Your task to perform on an android device: turn on priority inbox in the gmail app Image 0: 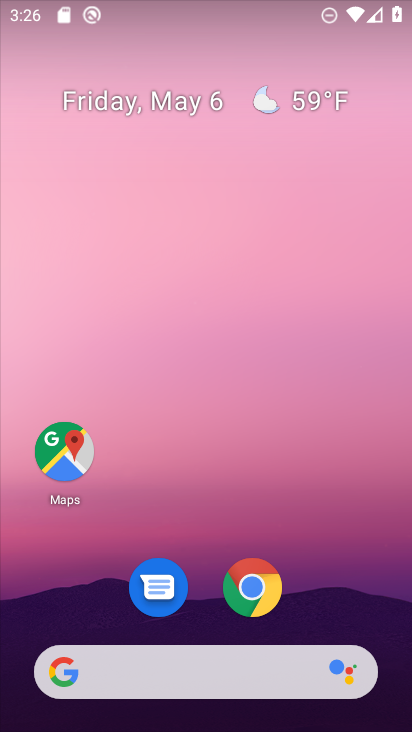
Step 0: drag from (392, 557) to (411, 329)
Your task to perform on an android device: turn on priority inbox in the gmail app Image 1: 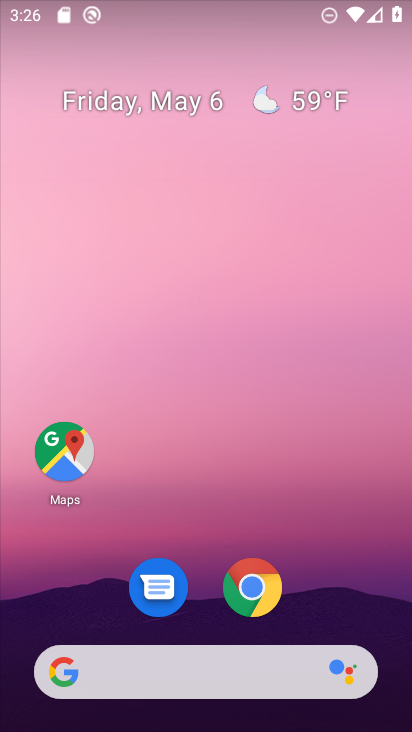
Step 1: drag from (344, 572) to (344, 93)
Your task to perform on an android device: turn on priority inbox in the gmail app Image 2: 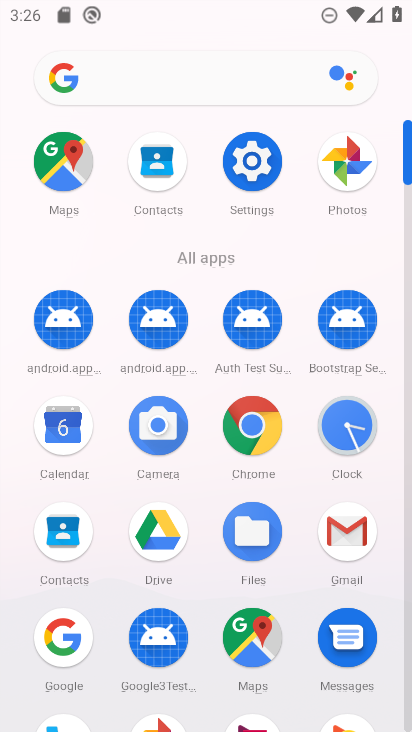
Step 2: click (347, 544)
Your task to perform on an android device: turn on priority inbox in the gmail app Image 3: 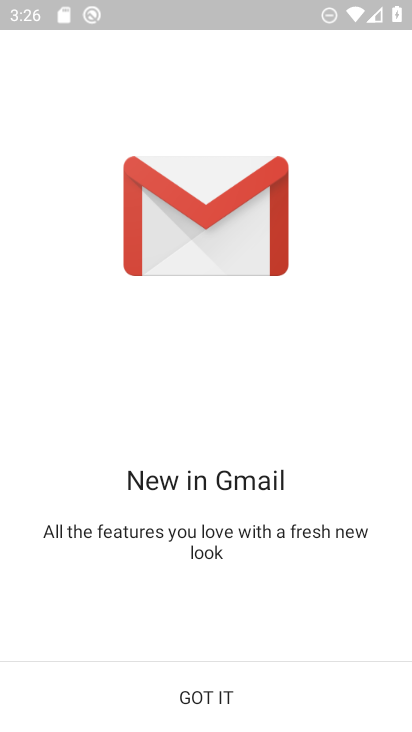
Step 3: click (203, 679)
Your task to perform on an android device: turn on priority inbox in the gmail app Image 4: 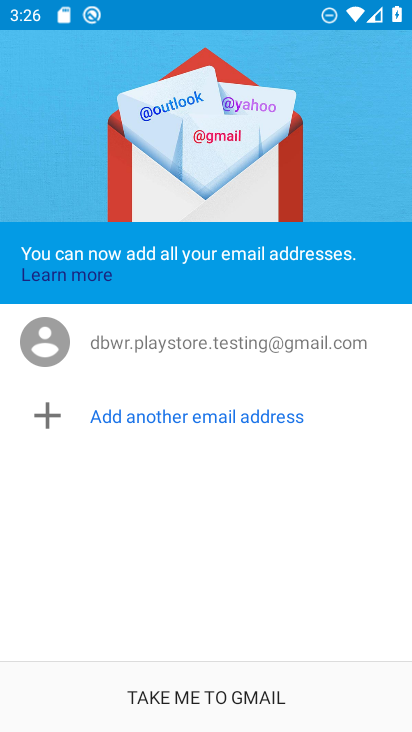
Step 4: click (224, 699)
Your task to perform on an android device: turn on priority inbox in the gmail app Image 5: 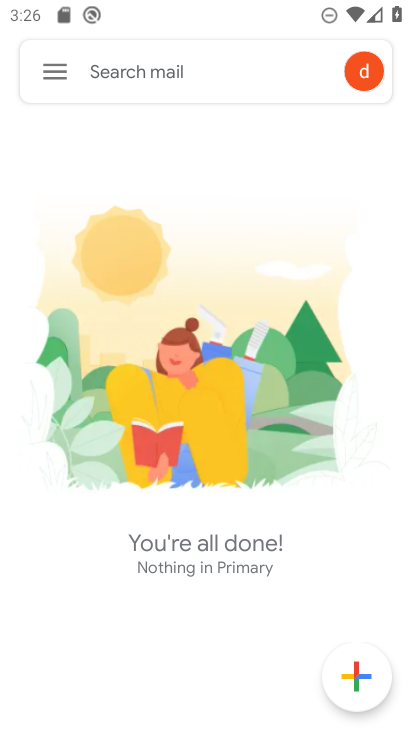
Step 5: click (51, 84)
Your task to perform on an android device: turn on priority inbox in the gmail app Image 6: 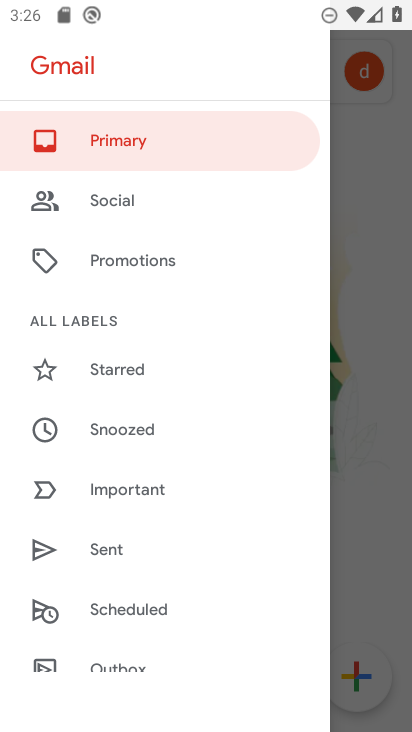
Step 6: drag from (121, 631) to (249, 209)
Your task to perform on an android device: turn on priority inbox in the gmail app Image 7: 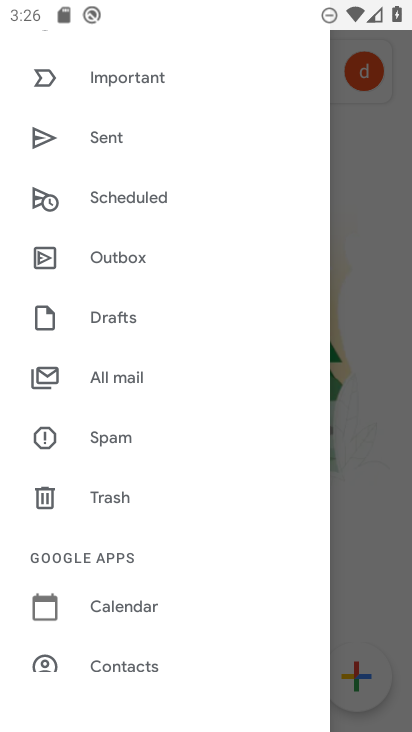
Step 7: drag from (149, 596) to (194, 215)
Your task to perform on an android device: turn on priority inbox in the gmail app Image 8: 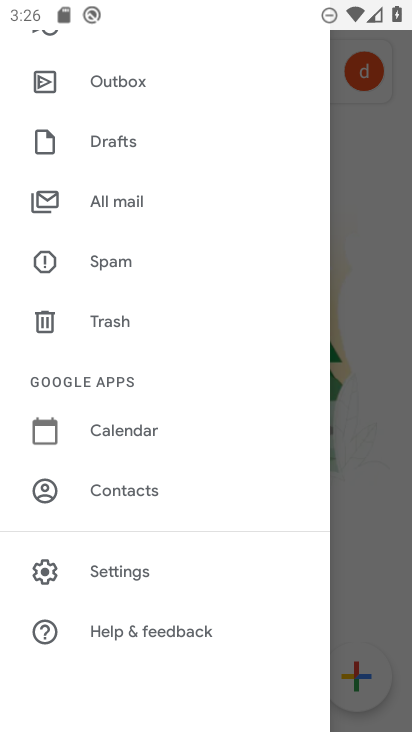
Step 8: click (110, 573)
Your task to perform on an android device: turn on priority inbox in the gmail app Image 9: 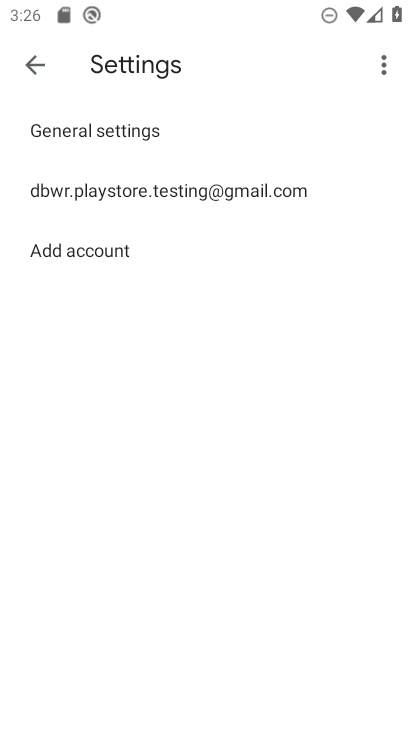
Step 9: click (115, 190)
Your task to perform on an android device: turn on priority inbox in the gmail app Image 10: 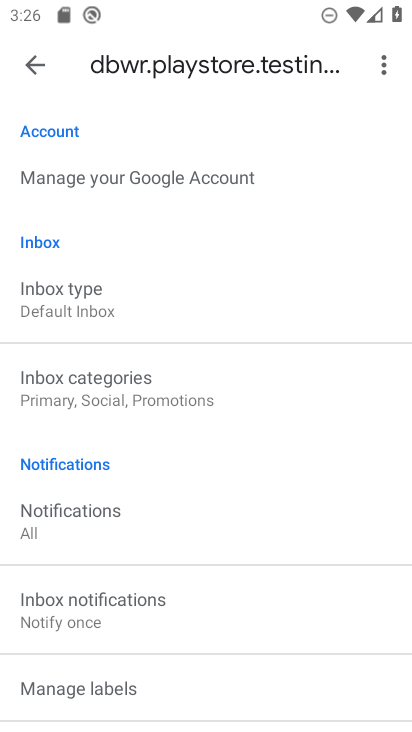
Step 10: click (68, 329)
Your task to perform on an android device: turn on priority inbox in the gmail app Image 11: 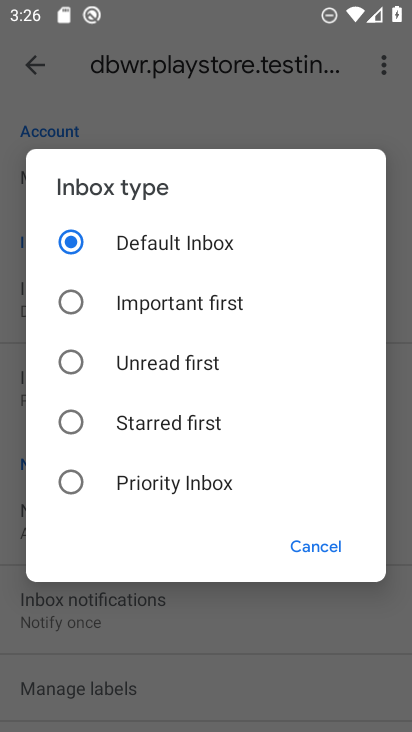
Step 11: click (65, 482)
Your task to perform on an android device: turn on priority inbox in the gmail app Image 12: 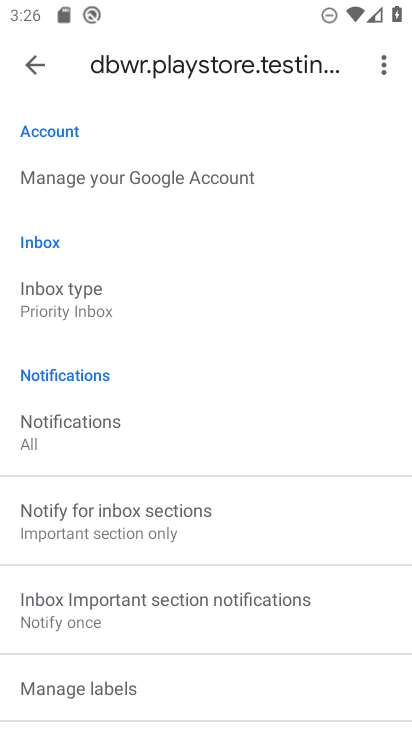
Step 12: task complete